Your task to perform on an android device: Open calendar and show me the second week of next month Image 0: 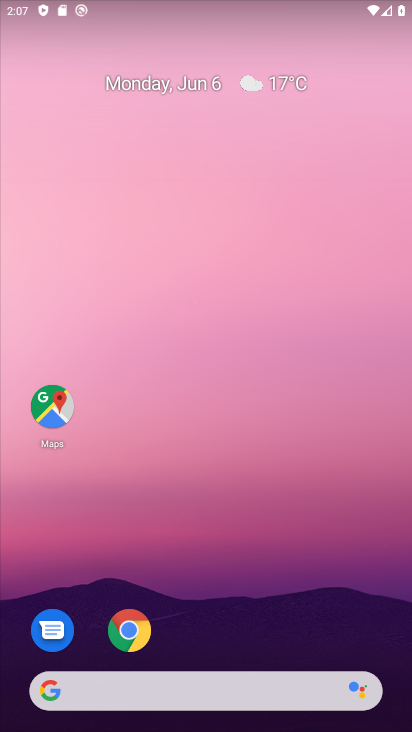
Step 0: drag from (295, 611) to (210, 67)
Your task to perform on an android device: Open calendar and show me the second week of next month Image 1: 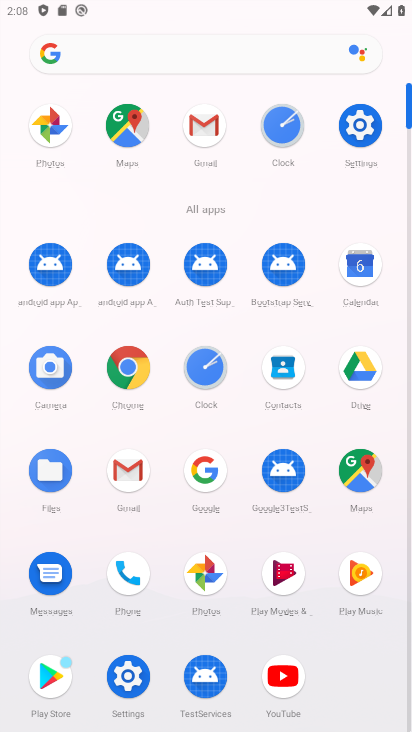
Step 1: click (355, 261)
Your task to perform on an android device: Open calendar and show me the second week of next month Image 2: 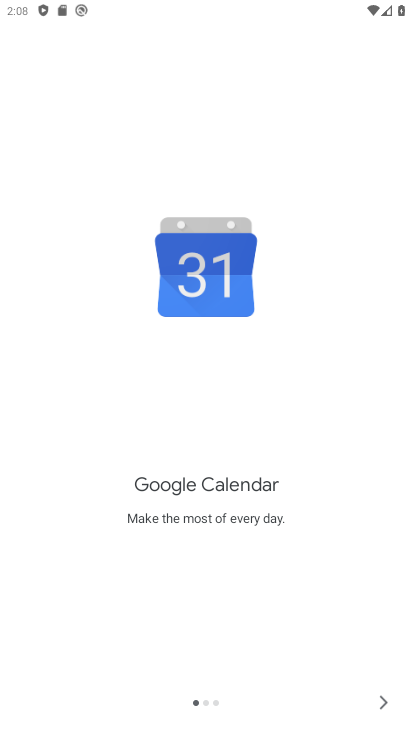
Step 2: click (385, 695)
Your task to perform on an android device: Open calendar and show me the second week of next month Image 3: 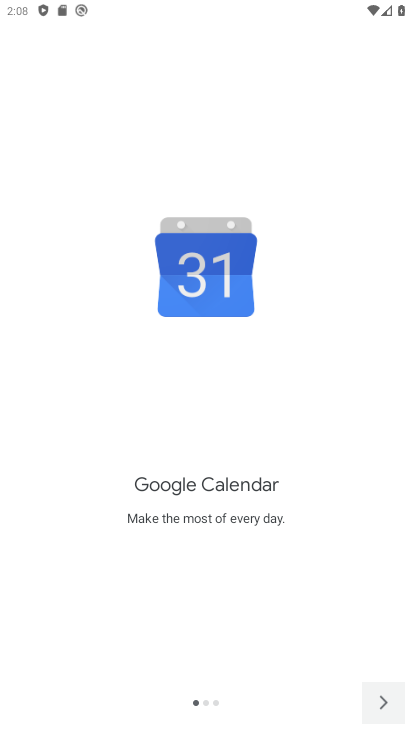
Step 3: click (385, 695)
Your task to perform on an android device: Open calendar and show me the second week of next month Image 4: 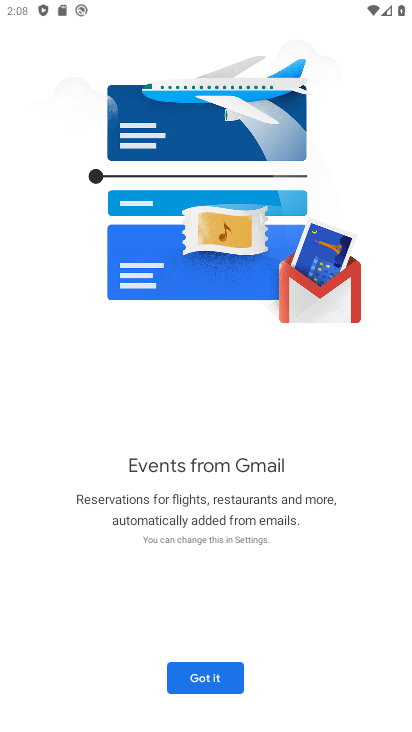
Step 4: click (385, 695)
Your task to perform on an android device: Open calendar and show me the second week of next month Image 5: 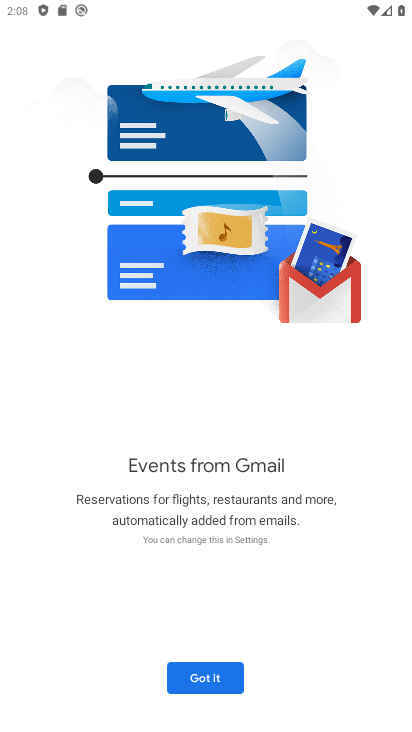
Step 5: click (207, 676)
Your task to perform on an android device: Open calendar and show me the second week of next month Image 6: 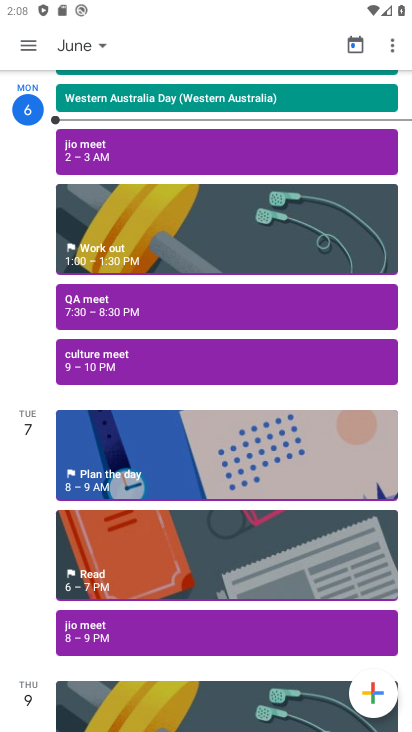
Step 6: click (73, 43)
Your task to perform on an android device: Open calendar and show me the second week of next month Image 7: 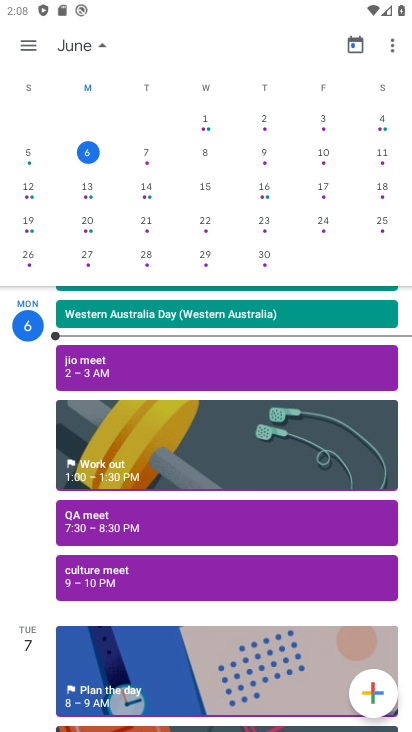
Step 7: drag from (336, 195) to (44, 233)
Your task to perform on an android device: Open calendar and show me the second week of next month Image 8: 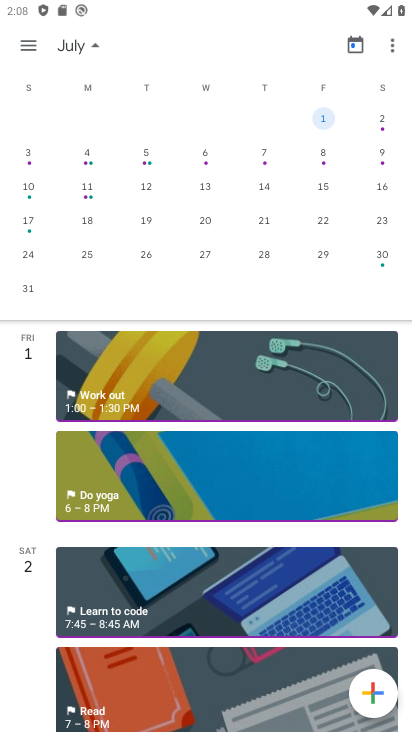
Step 8: click (207, 185)
Your task to perform on an android device: Open calendar and show me the second week of next month Image 9: 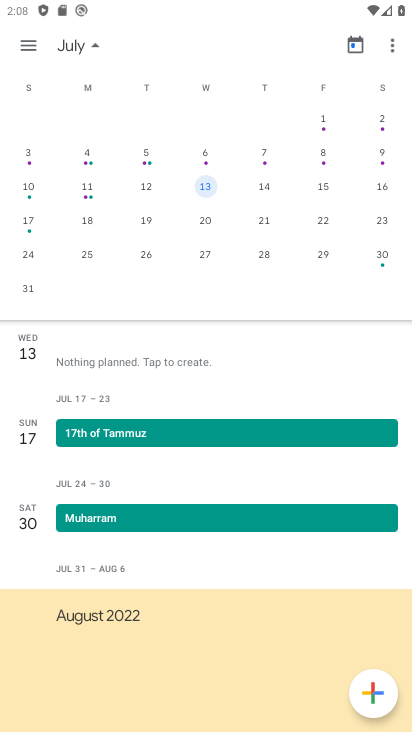
Step 9: task complete